Your task to perform on an android device: change notification settings in the gmail app Image 0: 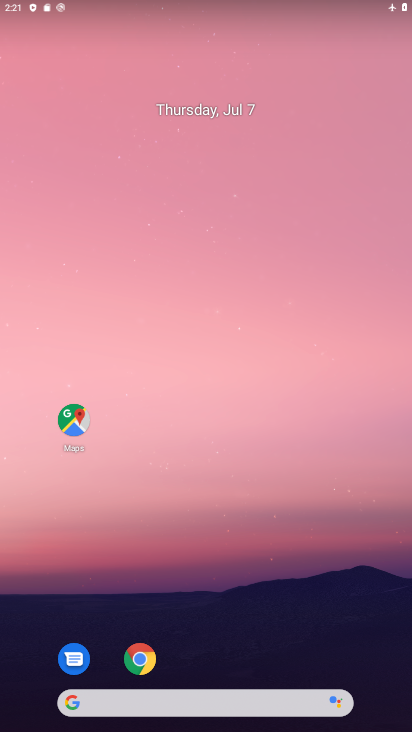
Step 0: drag from (40, 683) to (270, 0)
Your task to perform on an android device: change notification settings in the gmail app Image 1: 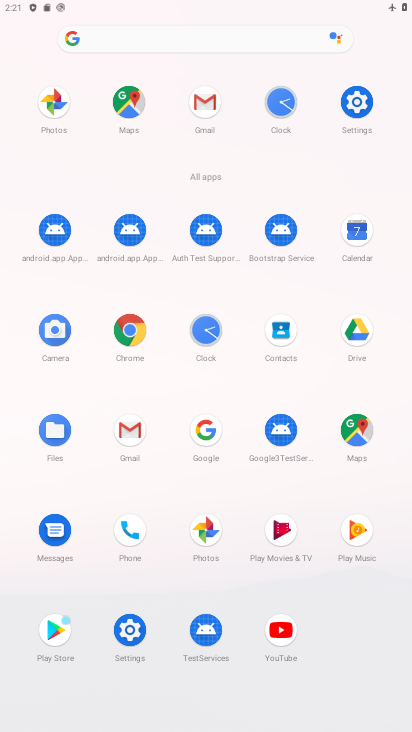
Step 1: click (134, 433)
Your task to perform on an android device: change notification settings in the gmail app Image 2: 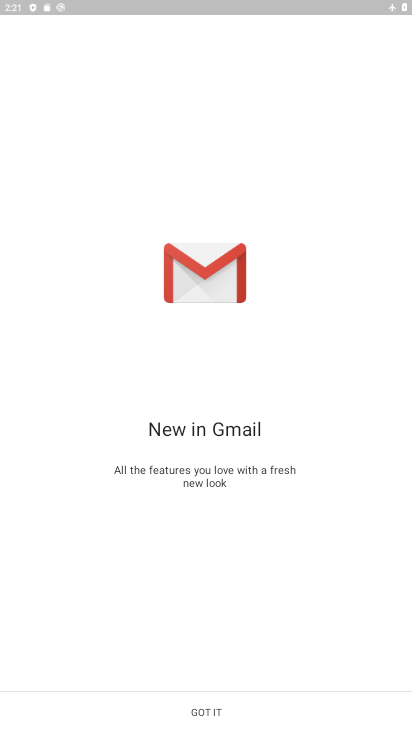
Step 2: click (193, 712)
Your task to perform on an android device: change notification settings in the gmail app Image 3: 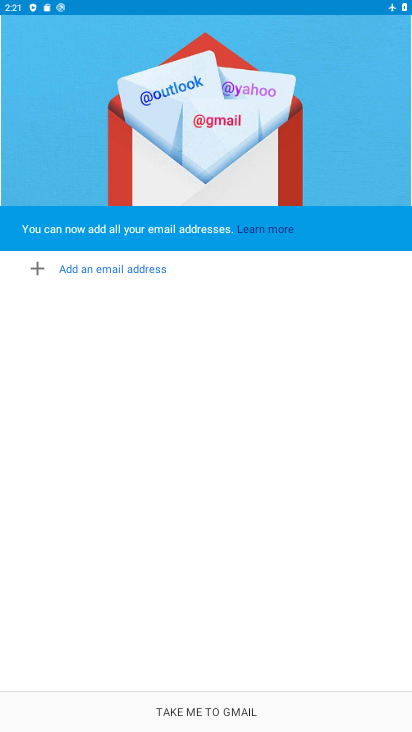
Step 3: click (203, 701)
Your task to perform on an android device: change notification settings in the gmail app Image 4: 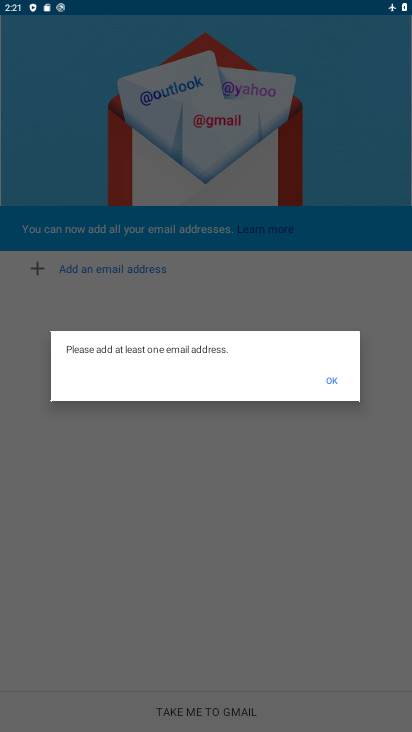
Step 4: click (321, 379)
Your task to perform on an android device: change notification settings in the gmail app Image 5: 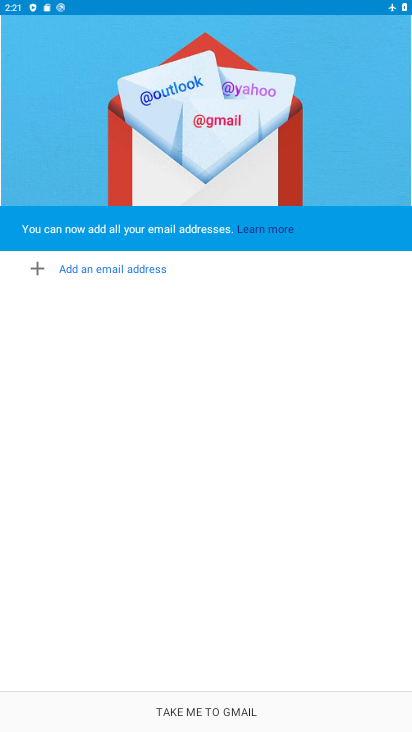
Step 5: click (200, 709)
Your task to perform on an android device: change notification settings in the gmail app Image 6: 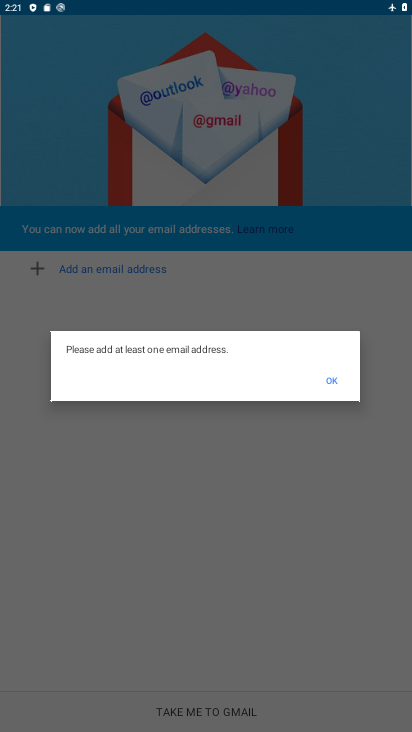
Step 6: click (329, 380)
Your task to perform on an android device: change notification settings in the gmail app Image 7: 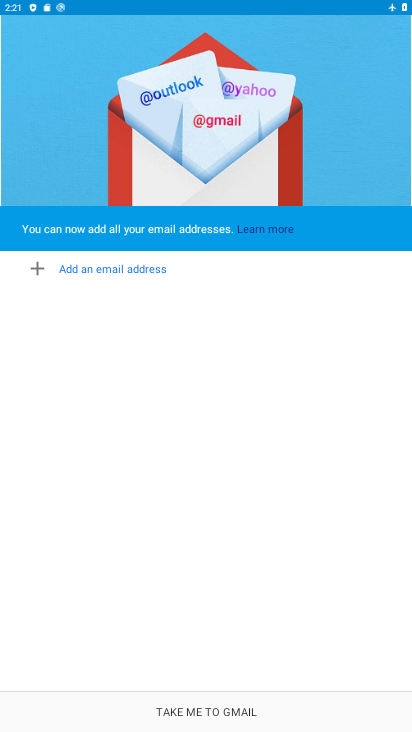
Step 7: task complete